Your task to perform on an android device: turn on location history Image 0: 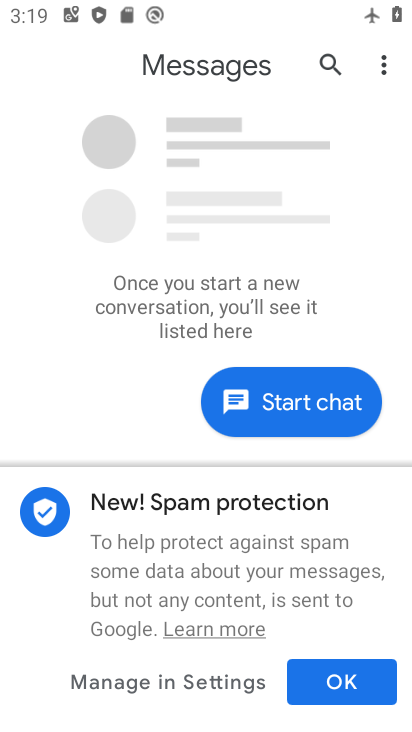
Step 0: press home button
Your task to perform on an android device: turn on location history Image 1: 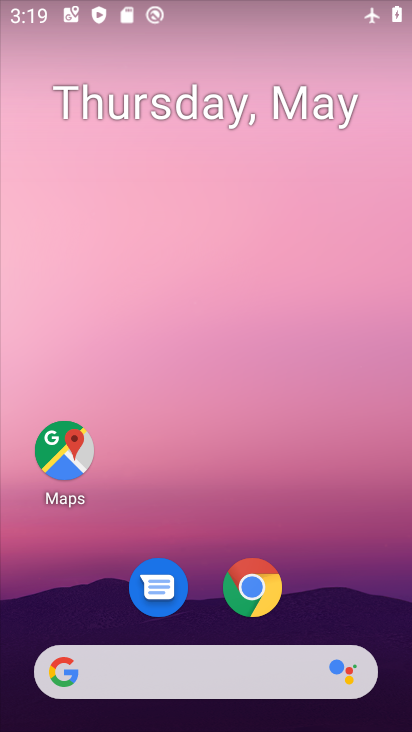
Step 1: drag from (234, 530) to (282, 89)
Your task to perform on an android device: turn on location history Image 2: 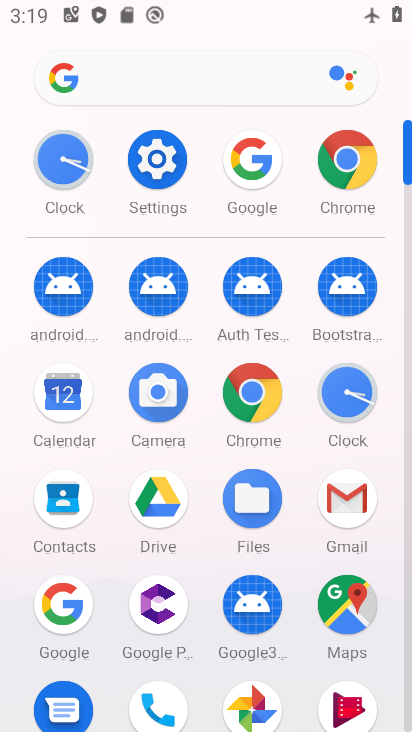
Step 2: click (171, 184)
Your task to perform on an android device: turn on location history Image 3: 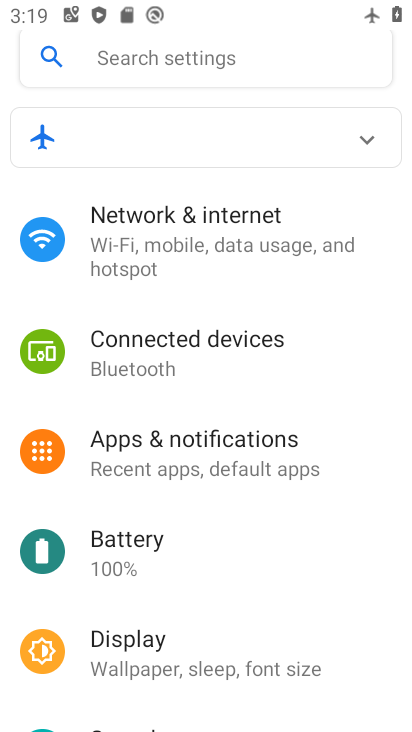
Step 3: drag from (180, 628) to (236, 340)
Your task to perform on an android device: turn on location history Image 4: 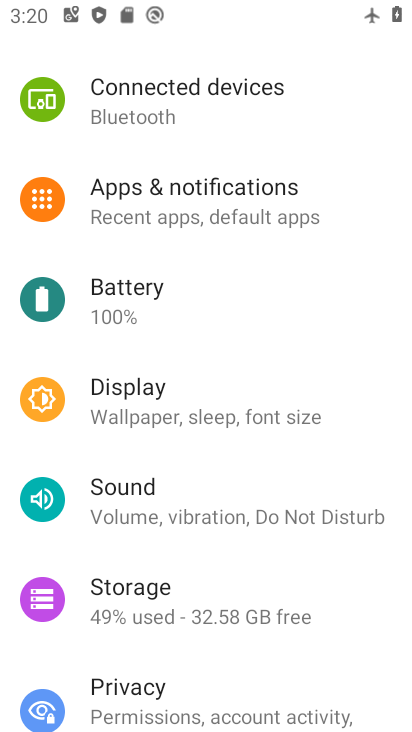
Step 4: drag from (216, 578) to (266, 326)
Your task to perform on an android device: turn on location history Image 5: 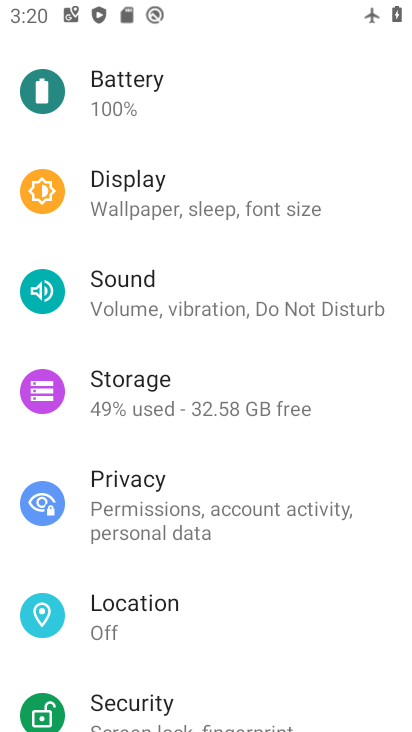
Step 5: click (182, 629)
Your task to perform on an android device: turn on location history Image 6: 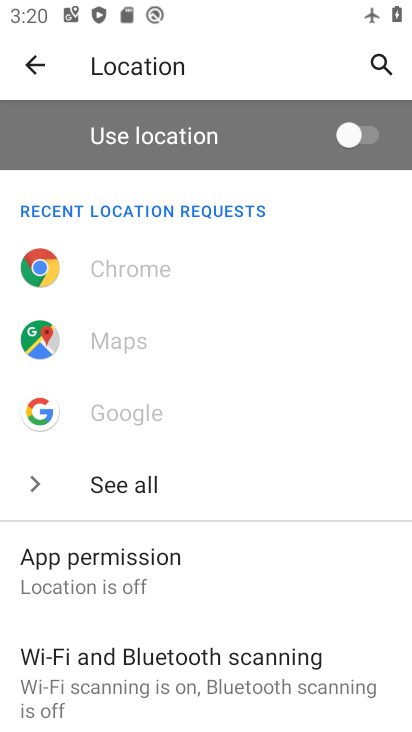
Step 6: drag from (183, 628) to (233, 390)
Your task to perform on an android device: turn on location history Image 7: 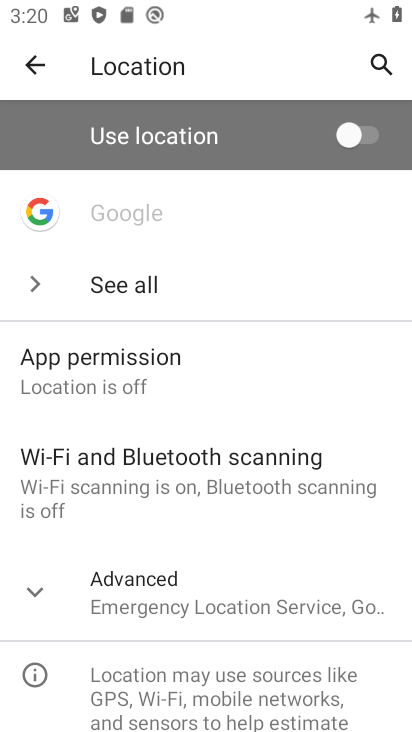
Step 7: click (214, 596)
Your task to perform on an android device: turn on location history Image 8: 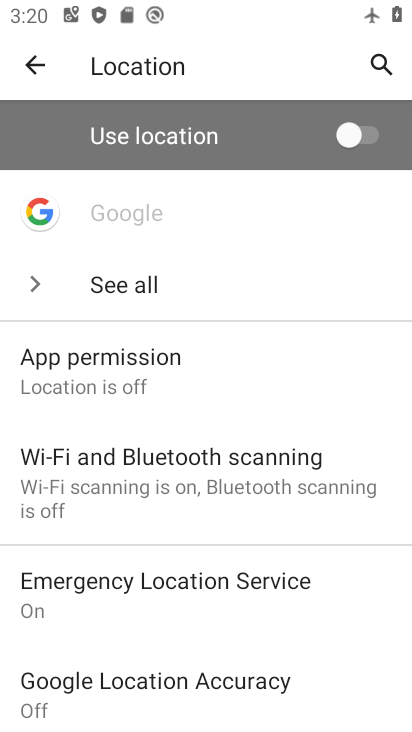
Step 8: drag from (221, 574) to (222, 231)
Your task to perform on an android device: turn on location history Image 9: 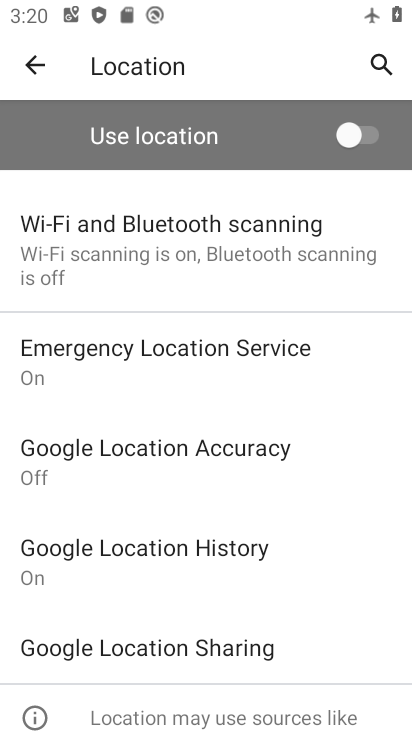
Step 9: click (217, 557)
Your task to perform on an android device: turn on location history Image 10: 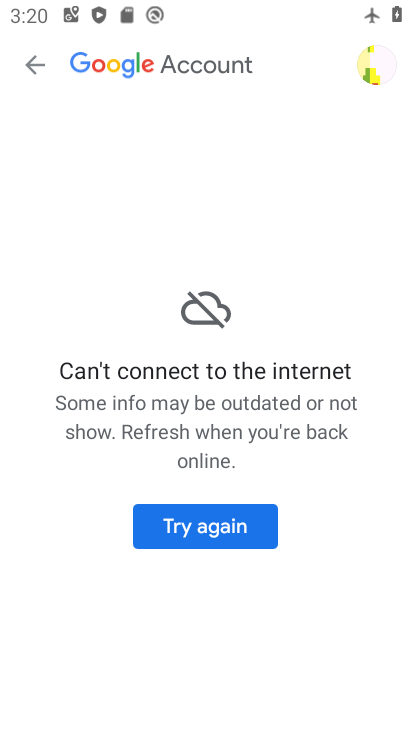
Step 10: task complete